Your task to perform on an android device: Clear all items from cart on walmart. Add "usb-a" to the cart on walmart, then select checkout. Image 0: 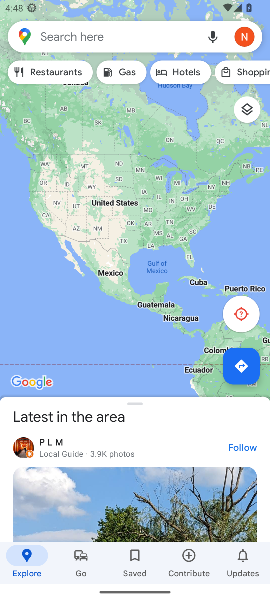
Step 0: press home button
Your task to perform on an android device: Clear all items from cart on walmart. Add "usb-a" to the cart on walmart, then select checkout. Image 1: 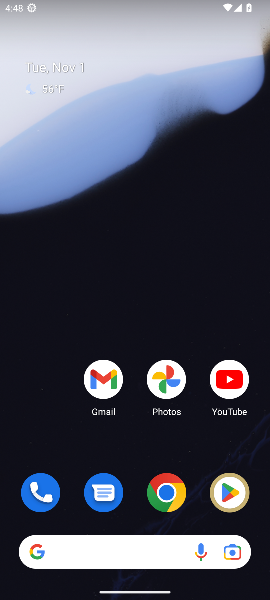
Step 1: click (174, 502)
Your task to perform on an android device: Clear all items from cart on walmart. Add "usb-a" to the cart on walmart, then select checkout. Image 2: 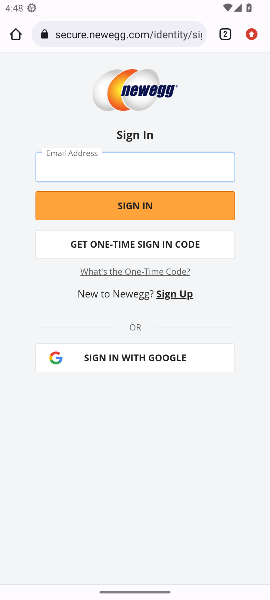
Step 2: click (130, 37)
Your task to perform on an android device: Clear all items from cart on walmart. Add "usb-a" to the cart on walmart, then select checkout. Image 3: 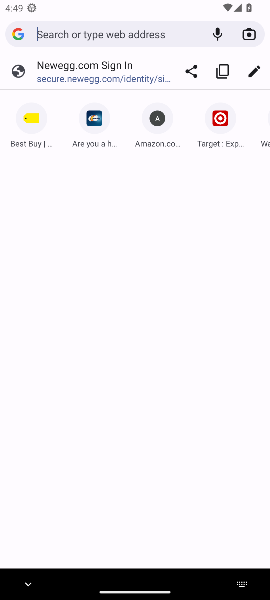
Step 3: type "walmart"
Your task to perform on an android device: Clear all items from cart on walmart. Add "usb-a" to the cart on walmart, then select checkout. Image 4: 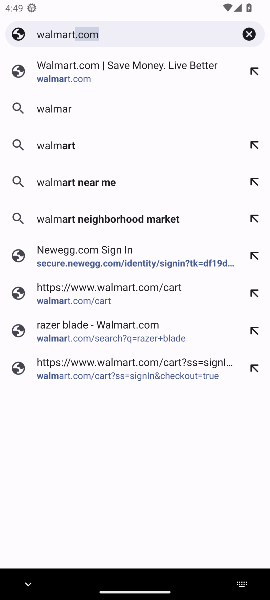
Step 4: type ""
Your task to perform on an android device: Clear all items from cart on walmart. Add "usb-a" to the cart on walmart, then select checkout. Image 5: 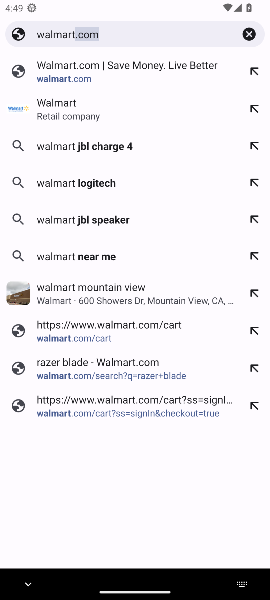
Step 5: press enter
Your task to perform on an android device: Clear all items from cart on walmart. Add "usb-a" to the cart on walmart, then select checkout. Image 6: 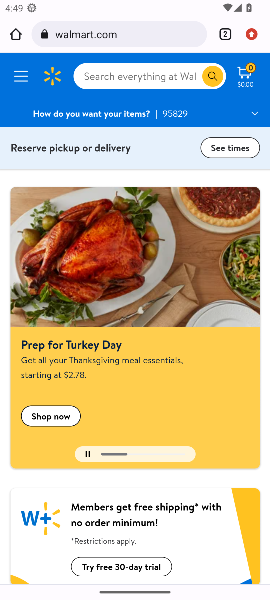
Step 6: click (114, 72)
Your task to perform on an android device: Clear all items from cart on walmart. Add "usb-a" to the cart on walmart, then select checkout. Image 7: 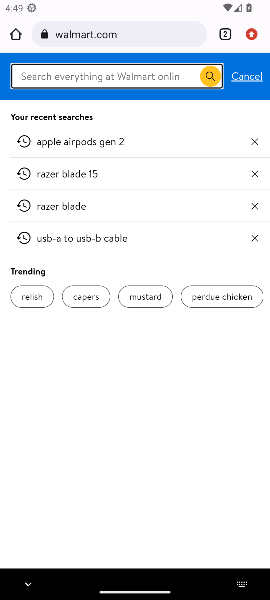
Step 7: click (256, 139)
Your task to perform on an android device: Clear all items from cart on walmart. Add "usb-a" to the cart on walmart, then select checkout. Image 8: 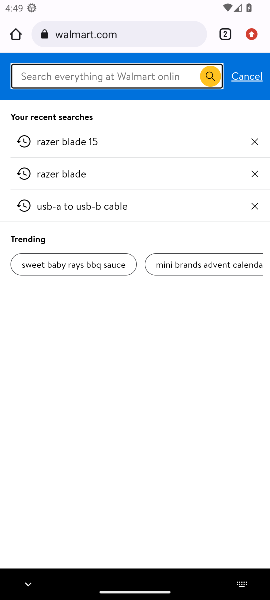
Step 8: click (256, 139)
Your task to perform on an android device: Clear all items from cart on walmart. Add "usb-a" to the cart on walmart, then select checkout. Image 9: 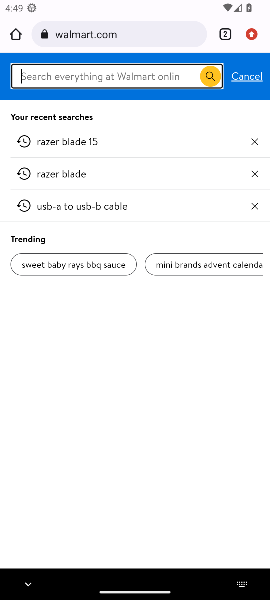
Step 9: click (256, 139)
Your task to perform on an android device: Clear all items from cart on walmart. Add "usb-a" to the cart on walmart, then select checkout. Image 10: 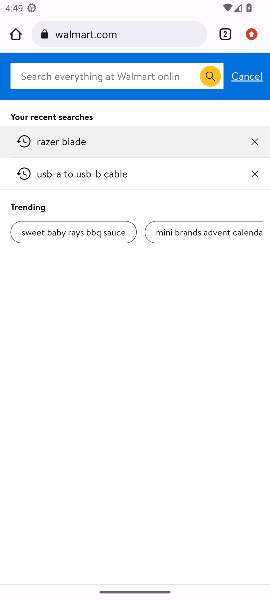
Step 10: click (256, 139)
Your task to perform on an android device: Clear all items from cart on walmart. Add "usb-a" to the cart on walmart, then select checkout. Image 11: 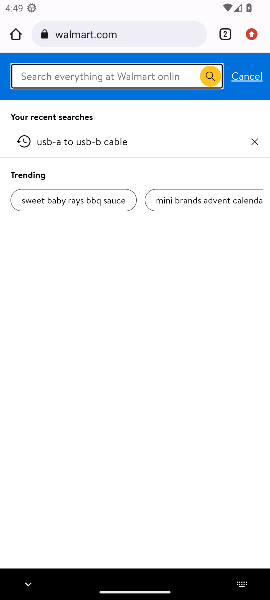
Step 11: click (256, 139)
Your task to perform on an android device: Clear all items from cart on walmart. Add "usb-a" to the cart on walmart, then select checkout. Image 12: 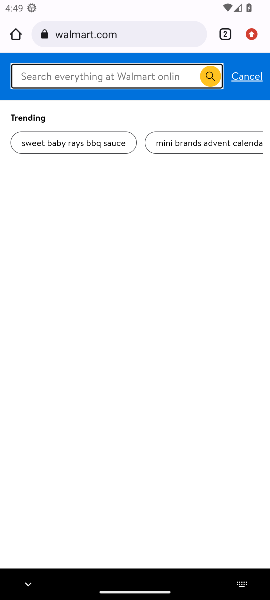
Step 12: click (237, 77)
Your task to perform on an android device: Clear all items from cart on walmart. Add "usb-a" to the cart on walmart, then select checkout. Image 13: 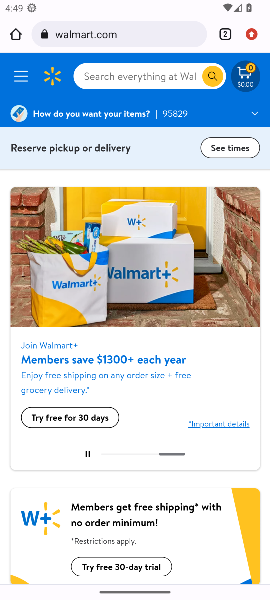
Step 13: click (248, 93)
Your task to perform on an android device: Clear all items from cart on walmart. Add "usb-a" to the cart on walmart, then select checkout. Image 14: 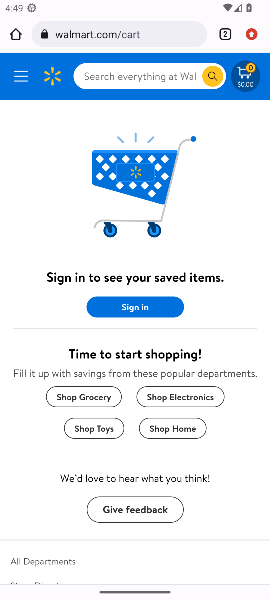
Step 14: click (132, 82)
Your task to perform on an android device: Clear all items from cart on walmart. Add "usb-a" to the cart on walmart, then select checkout. Image 15: 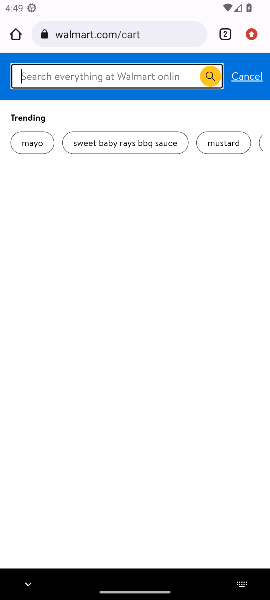
Step 15: click (132, 70)
Your task to perform on an android device: Clear all items from cart on walmart. Add "usb-a" to the cart on walmart, then select checkout. Image 16: 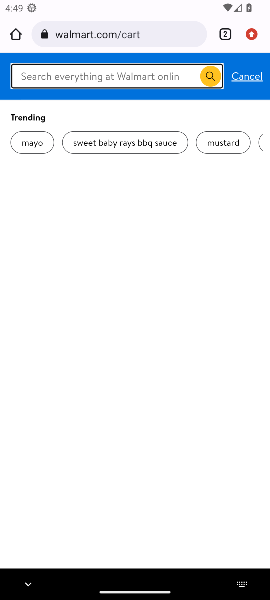
Step 16: type "usb-a"
Your task to perform on an android device: Clear all items from cart on walmart. Add "usb-a" to the cart on walmart, then select checkout. Image 17: 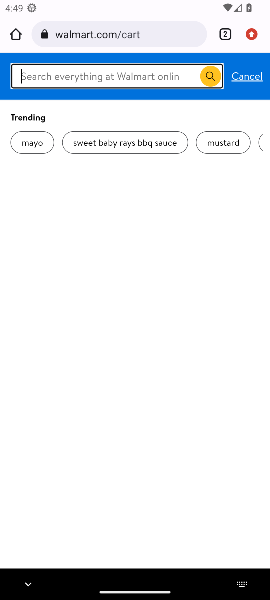
Step 17: type ""
Your task to perform on an android device: Clear all items from cart on walmart. Add "usb-a" to the cart on walmart, then select checkout. Image 18: 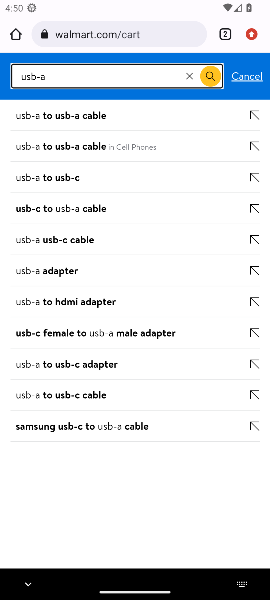
Step 18: press enter
Your task to perform on an android device: Clear all items from cart on walmart. Add "usb-a" to the cart on walmart, then select checkout. Image 19: 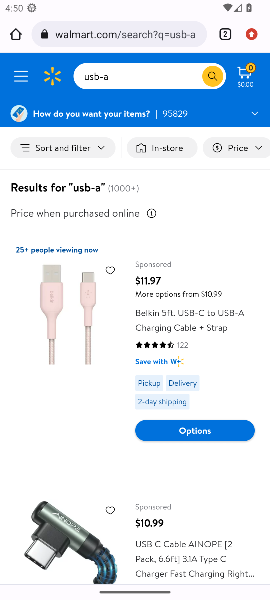
Step 19: drag from (147, 549) to (131, 271)
Your task to perform on an android device: Clear all items from cart on walmart. Add "usb-a" to the cart on walmart, then select checkout. Image 20: 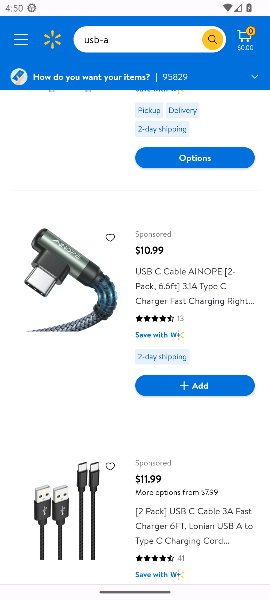
Step 20: drag from (139, 412) to (146, 305)
Your task to perform on an android device: Clear all items from cart on walmart. Add "usb-a" to the cart on walmart, then select checkout. Image 21: 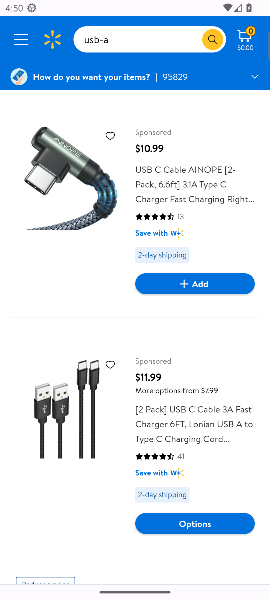
Step 21: drag from (166, 422) to (214, 417)
Your task to perform on an android device: Clear all items from cart on walmart. Add "usb-a" to the cart on walmart, then select checkout. Image 22: 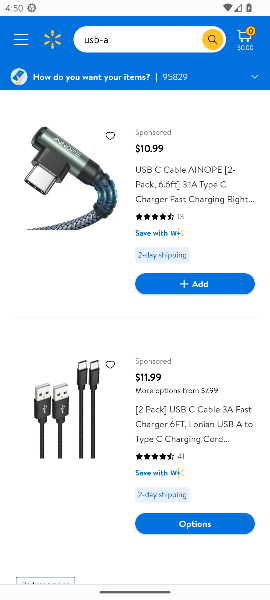
Step 22: click (214, 417)
Your task to perform on an android device: Clear all items from cart on walmart. Add "usb-a" to the cart on walmart, then select checkout. Image 23: 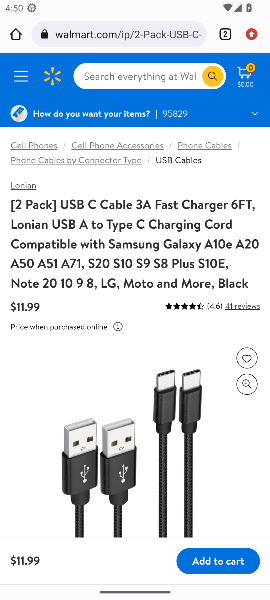
Step 23: click (203, 562)
Your task to perform on an android device: Clear all items from cart on walmart. Add "usb-a" to the cart on walmart, then select checkout. Image 24: 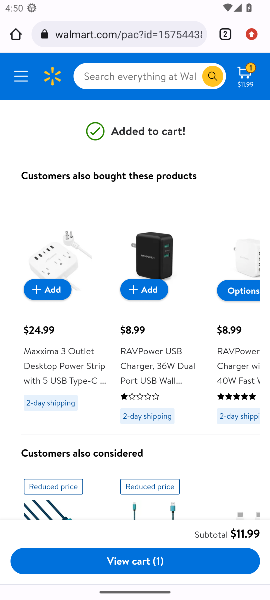
Step 24: click (251, 79)
Your task to perform on an android device: Clear all items from cart on walmart. Add "usb-a" to the cart on walmart, then select checkout. Image 25: 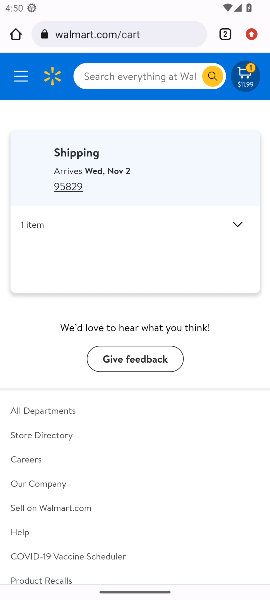
Step 25: click (240, 223)
Your task to perform on an android device: Clear all items from cart on walmart. Add "usb-a" to the cart on walmart, then select checkout. Image 26: 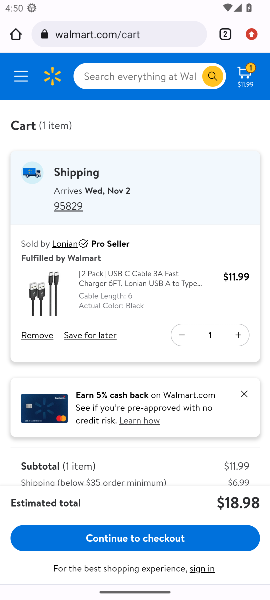
Step 26: click (185, 541)
Your task to perform on an android device: Clear all items from cart on walmart. Add "usb-a" to the cart on walmart, then select checkout. Image 27: 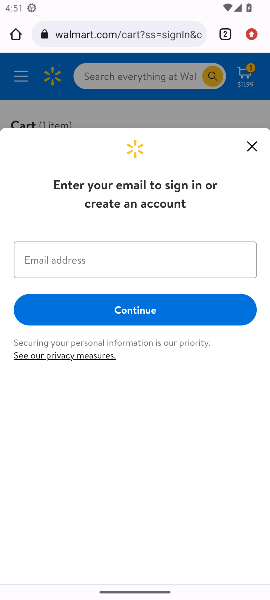
Step 27: task complete